Your task to perform on an android device: turn off notifications settings in the gmail app Image 0: 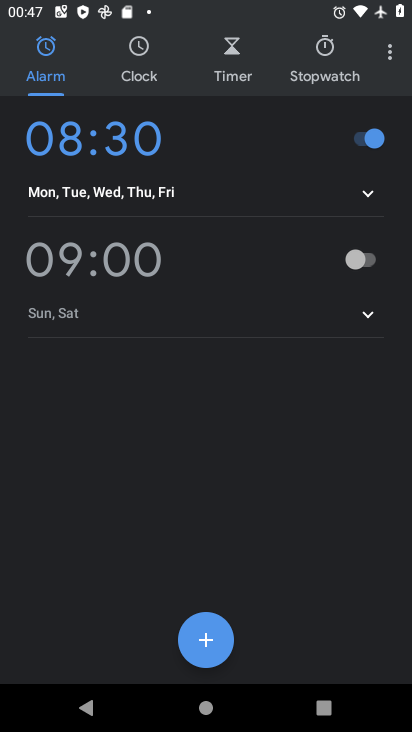
Step 0: press home button
Your task to perform on an android device: turn off notifications settings in the gmail app Image 1: 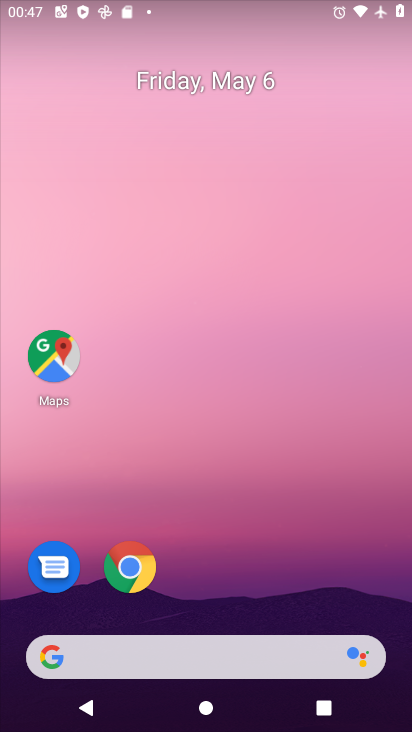
Step 1: drag from (228, 548) to (241, 226)
Your task to perform on an android device: turn off notifications settings in the gmail app Image 2: 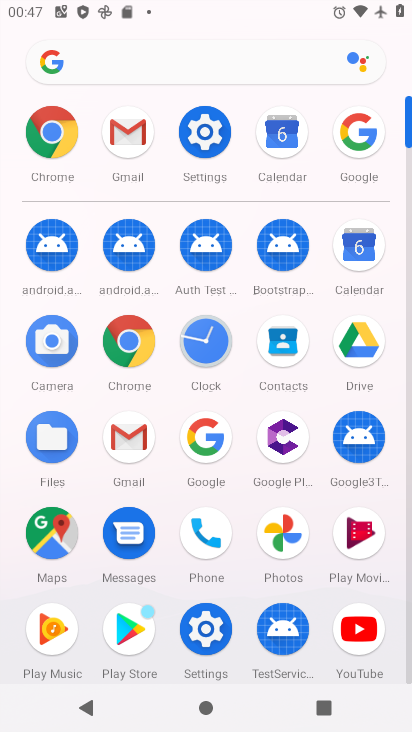
Step 2: click (117, 133)
Your task to perform on an android device: turn off notifications settings in the gmail app Image 3: 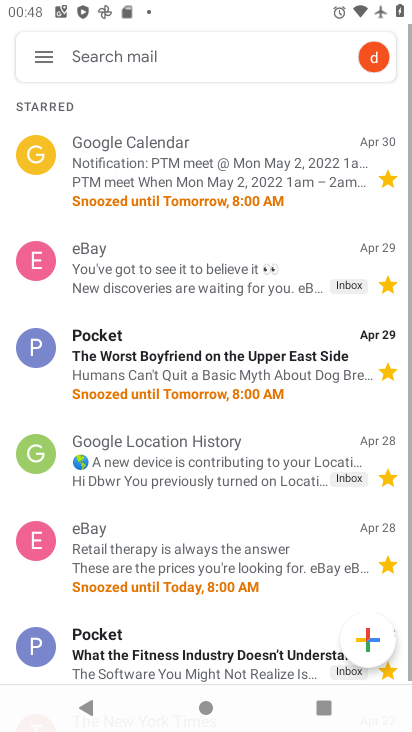
Step 3: click (31, 60)
Your task to perform on an android device: turn off notifications settings in the gmail app Image 4: 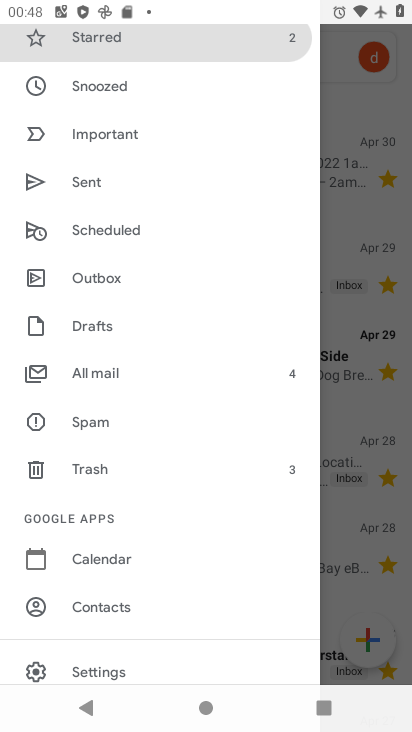
Step 4: click (105, 657)
Your task to perform on an android device: turn off notifications settings in the gmail app Image 5: 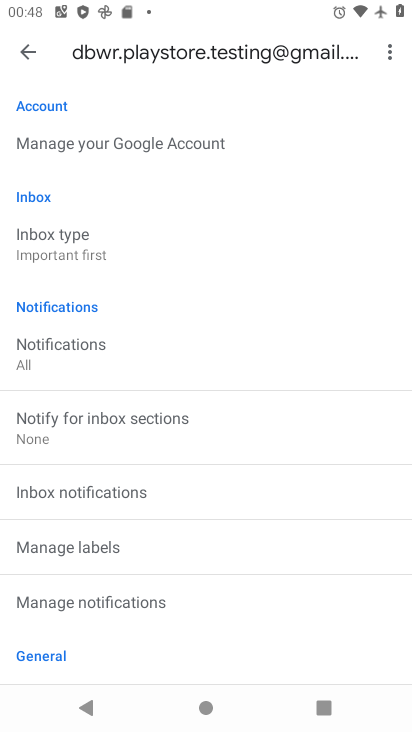
Step 5: click (122, 598)
Your task to perform on an android device: turn off notifications settings in the gmail app Image 6: 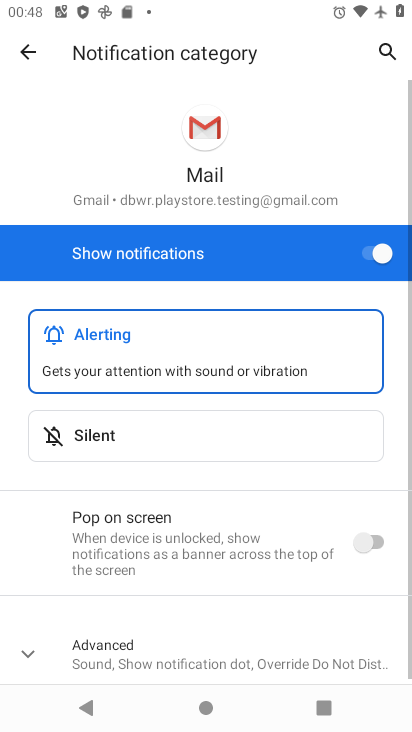
Step 6: click (361, 248)
Your task to perform on an android device: turn off notifications settings in the gmail app Image 7: 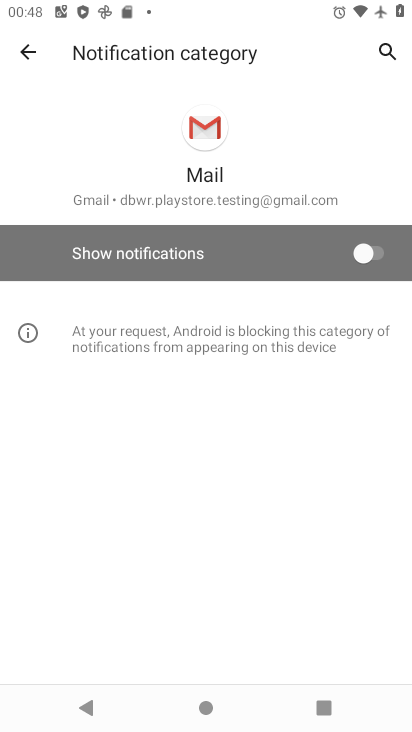
Step 7: task complete